Your task to perform on an android device: Open internet settings Image 0: 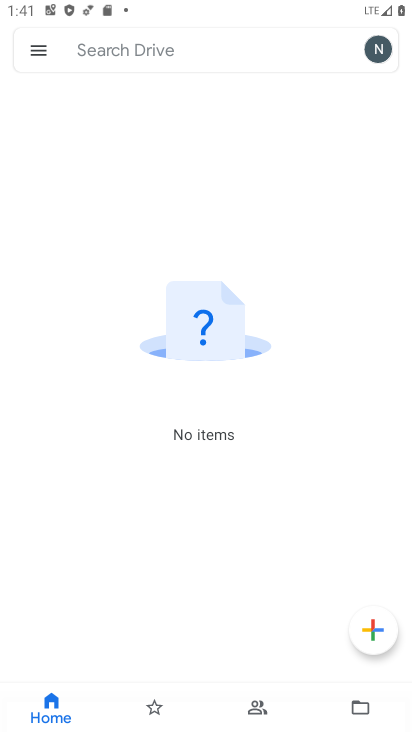
Step 0: press home button
Your task to perform on an android device: Open internet settings Image 1: 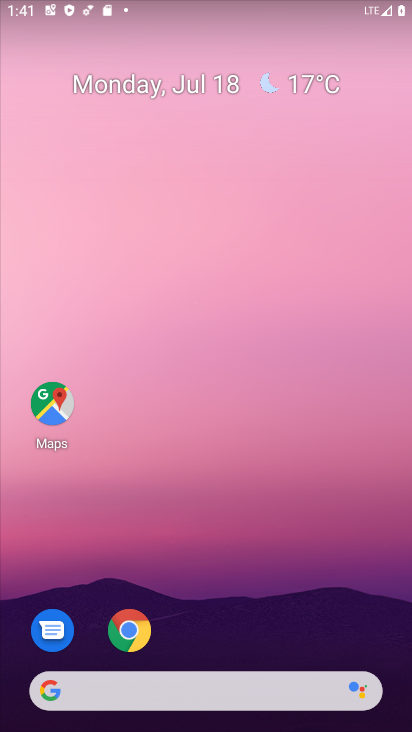
Step 1: drag from (239, 623) to (250, 52)
Your task to perform on an android device: Open internet settings Image 2: 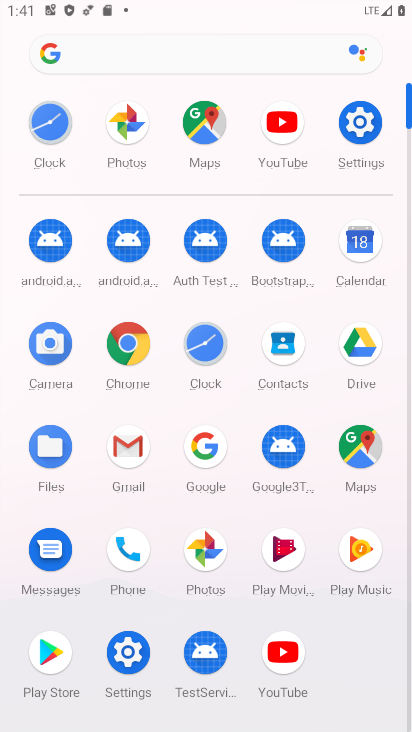
Step 2: click (359, 113)
Your task to perform on an android device: Open internet settings Image 3: 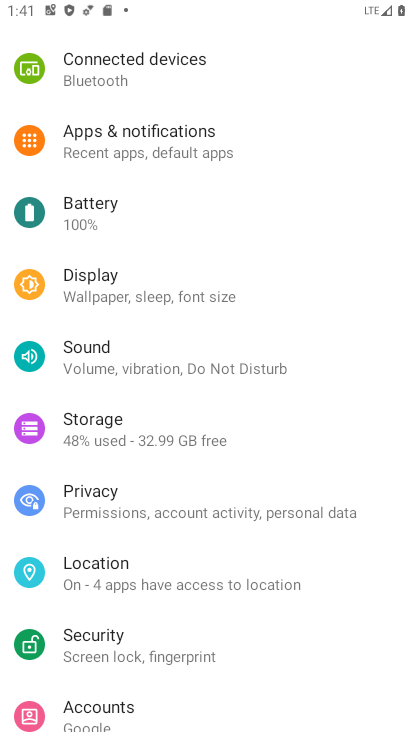
Step 3: drag from (208, 253) to (230, 618)
Your task to perform on an android device: Open internet settings Image 4: 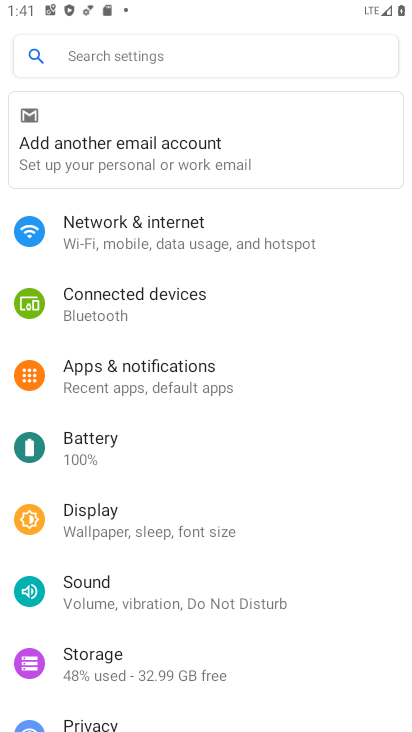
Step 4: click (235, 233)
Your task to perform on an android device: Open internet settings Image 5: 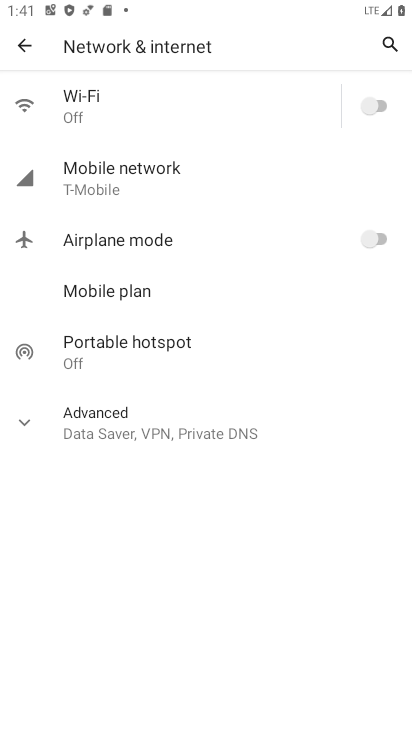
Step 5: task complete